Your task to perform on an android device: open chrome and create a bookmark for the current page Image 0: 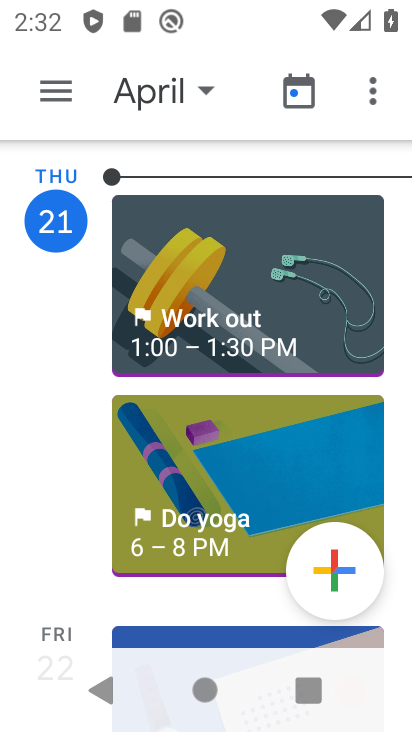
Step 0: press home button
Your task to perform on an android device: open chrome and create a bookmark for the current page Image 1: 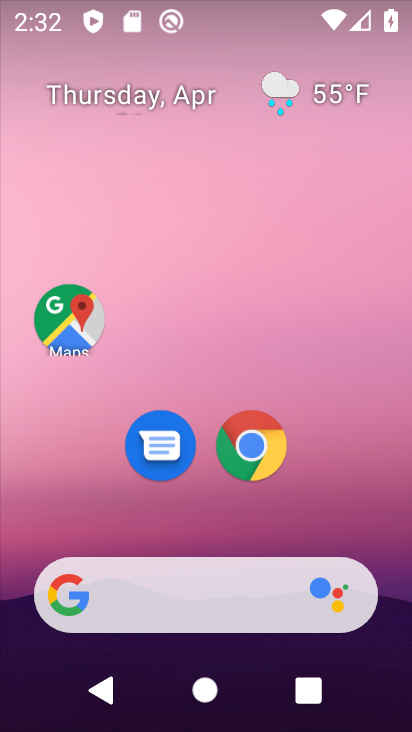
Step 1: click (252, 446)
Your task to perform on an android device: open chrome and create a bookmark for the current page Image 2: 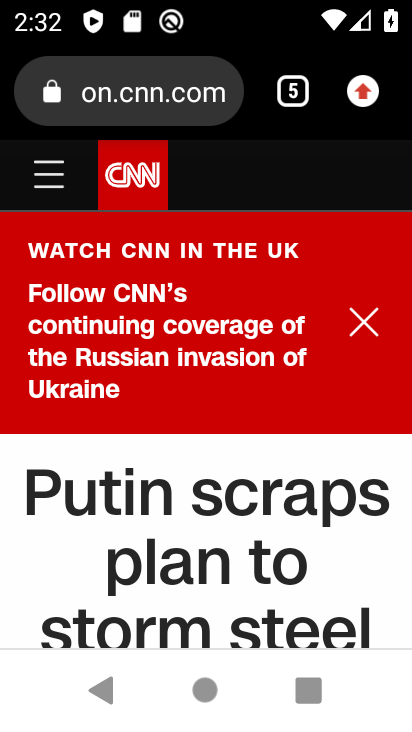
Step 2: click (364, 96)
Your task to perform on an android device: open chrome and create a bookmark for the current page Image 3: 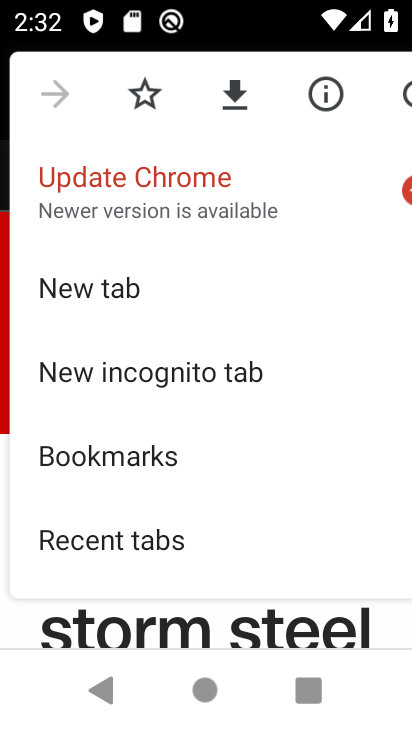
Step 3: click (143, 95)
Your task to perform on an android device: open chrome and create a bookmark for the current page Image 4: 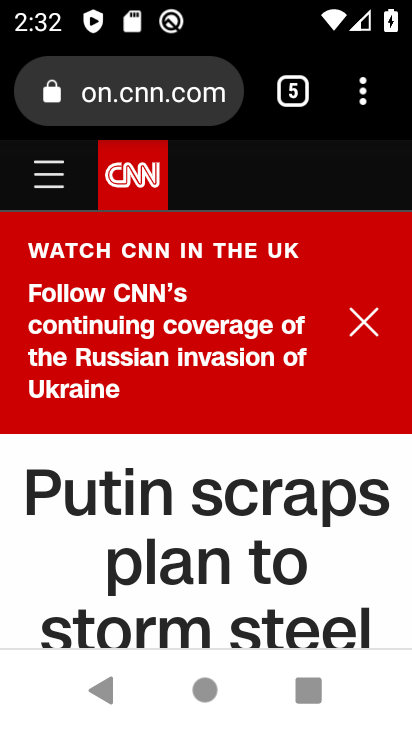
Step 4: task complete